Your task to perform on an android device: turn vacation reply on in the gmail app Image 0: 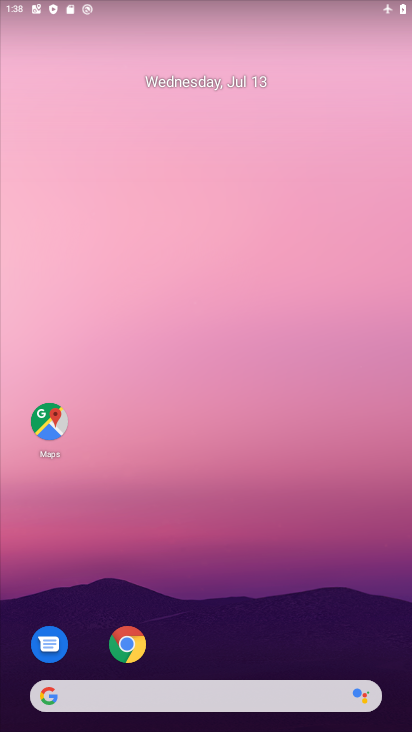
Step 0: drag from (288, 595) to (240, 26)
Your task to perform on an android device: turn vacation reply on in the gmail app Image 1: 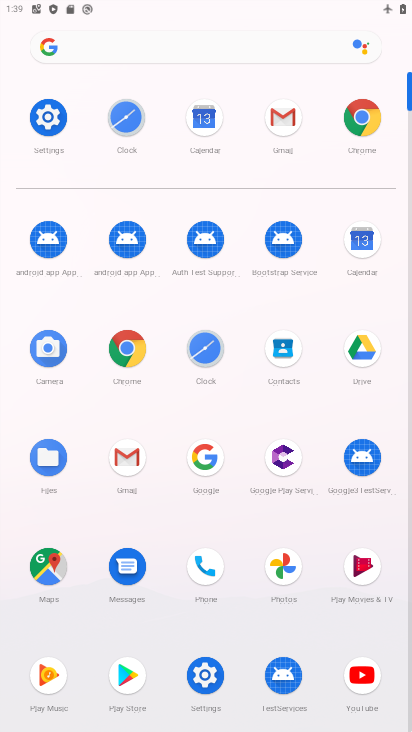
Step 1: click (290, 113)
Your task to perform on an android device: turn vacation reply on in the gmail app Image 2: 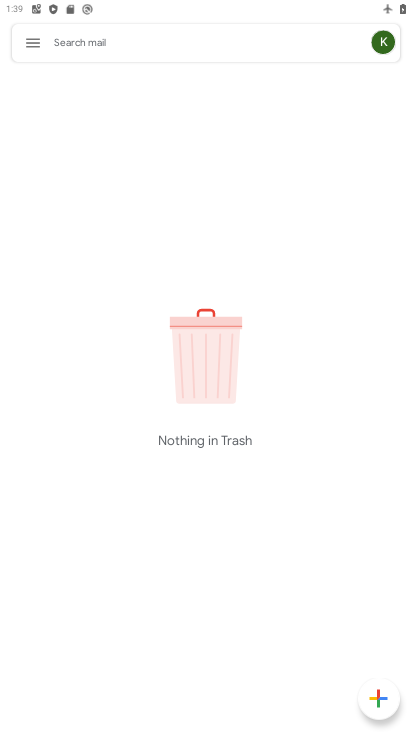
Step 2: click (27, 42)
Your task to perform on an android device: turn vacation reply on in the gmail app Image 3: 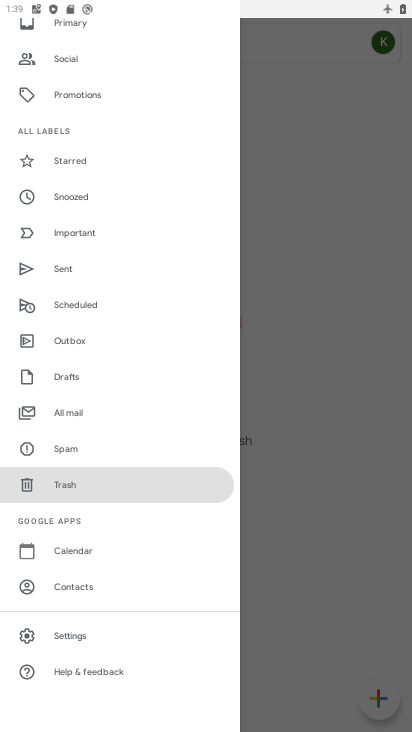
Step 3: click (62, 637)
Your task to perform on an android device: turn vacation reply on in the gmail app Image 4: 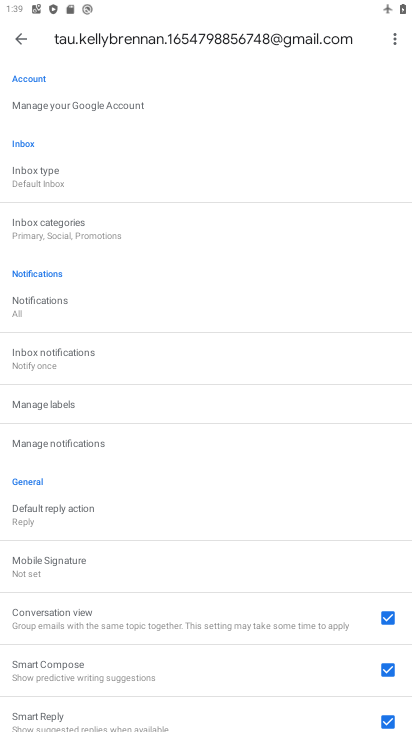
Step 4: drag from (267, 545) to (332, 136)
Your task to perform on an android device: turn vacation reply on in the gmail app Image 5: 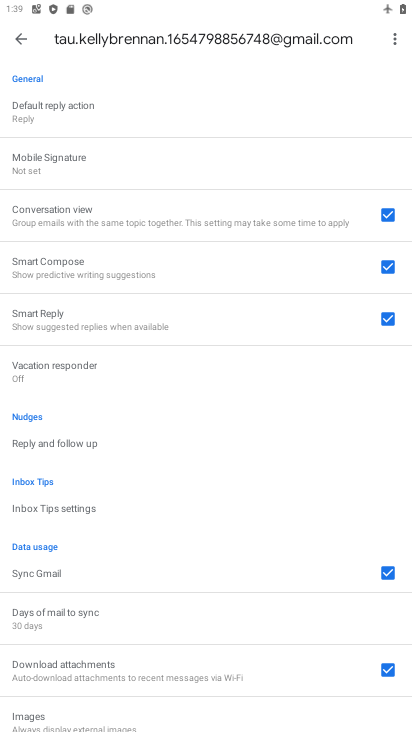
Step 5: click (133, 374)
Your task to perform on an android device: turn vacation reply on in the gmail app Image 6: 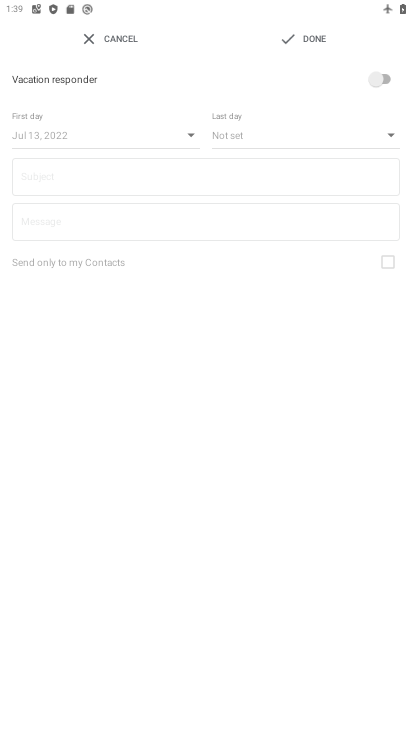
Step 6: click (391, 77)
Your task to perform on an android device: turn vacation reply on in the gmail app Image 7: 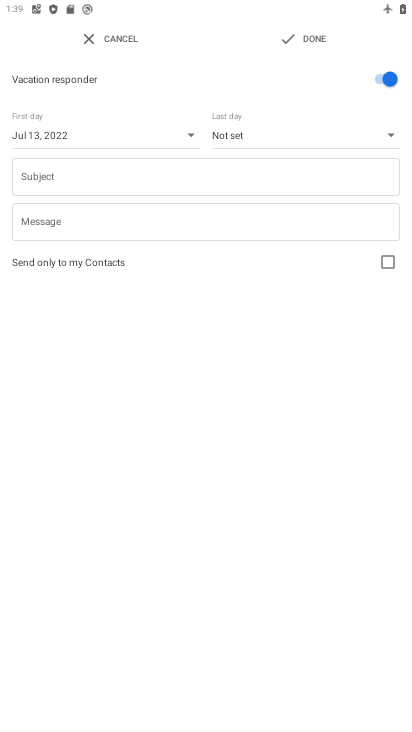
Step 7: task complete